Your task to perform on an android device: Go to Google Image 0: 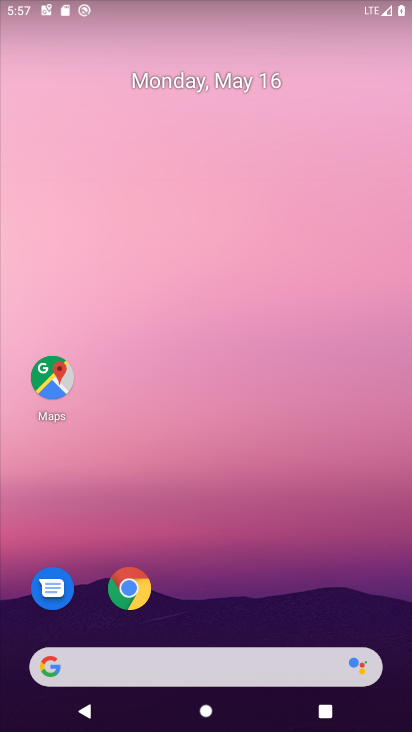
Step 0: drag from (251, 562) to (222, 0)
Your task to perform on an android device: Go to Google Image 1: 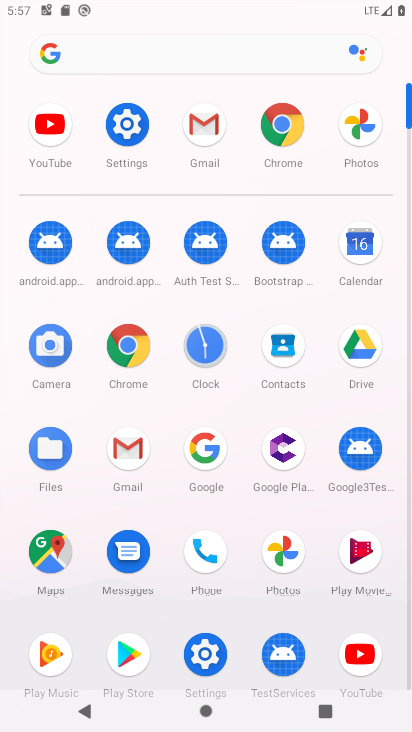
Step 1: click (201, 499)
Your task to perform on an android device: Go to Google Image 2: 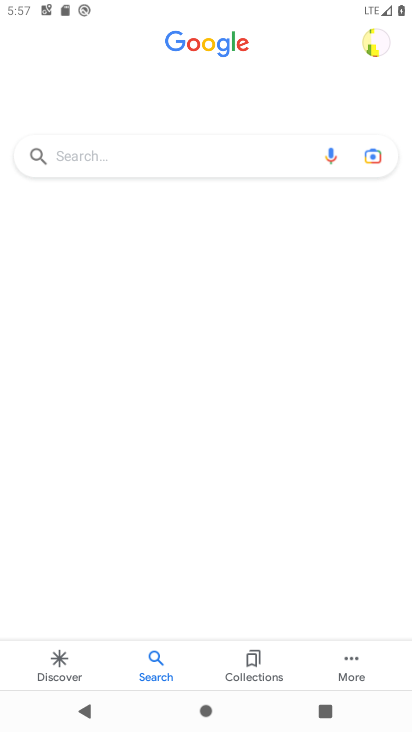
Step 2: task complete